Your task to perform on an android device: find snoozed emails in the gmail app Image 0: 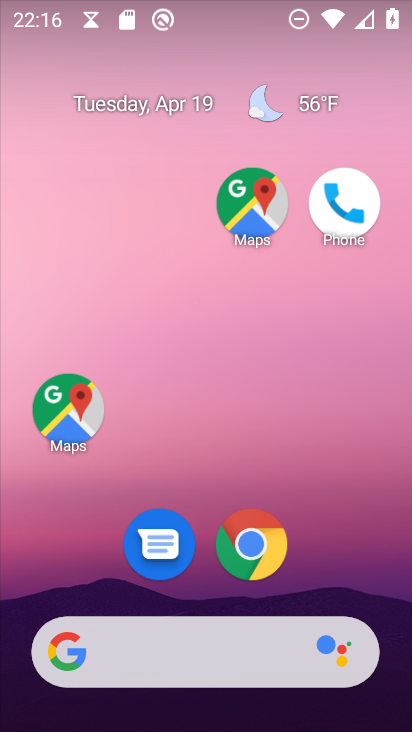
Step 0: drag from (141, 654) to (308, 120)
Your task to perform on an android device: find snoozed emails in the gmail app Image 1: 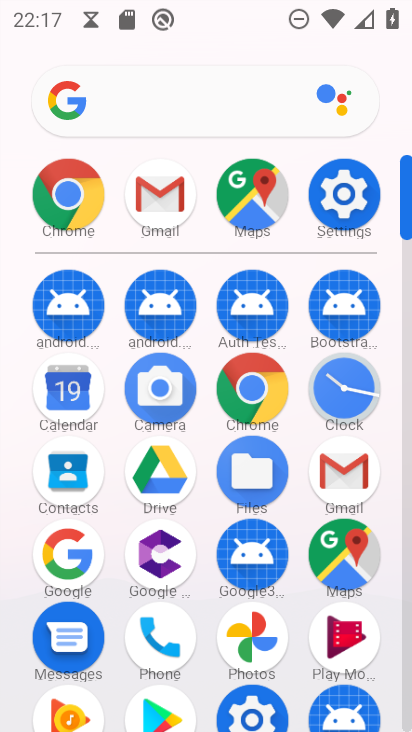
Step 1: click (155, 210)
Your task to perform on an android device: find snoozed emails in the gmail app Image 2: 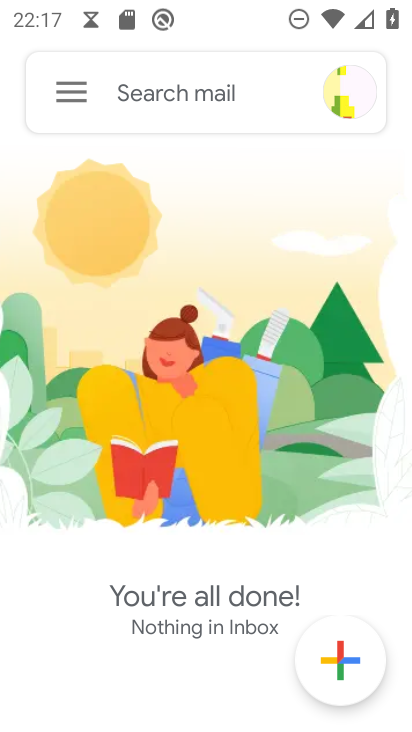
Step 2: click (69, 90)
Your task to perform on an android device: find snoozed emails in the gmail app Image 3: 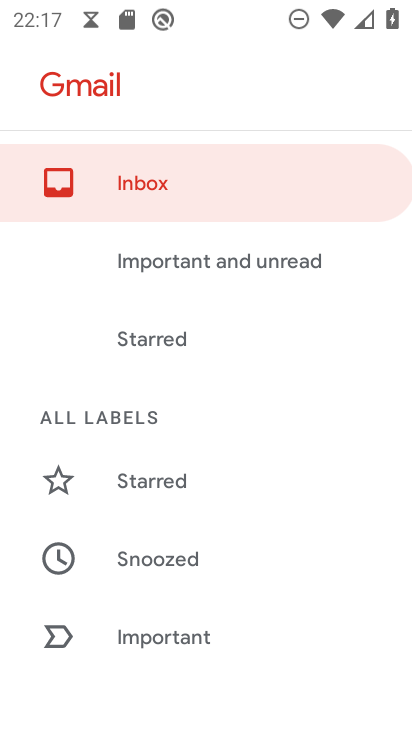
Step 3: click (188, 563)
Your task to perform on an android device: find snoozed emails in the gmail app Image 4: 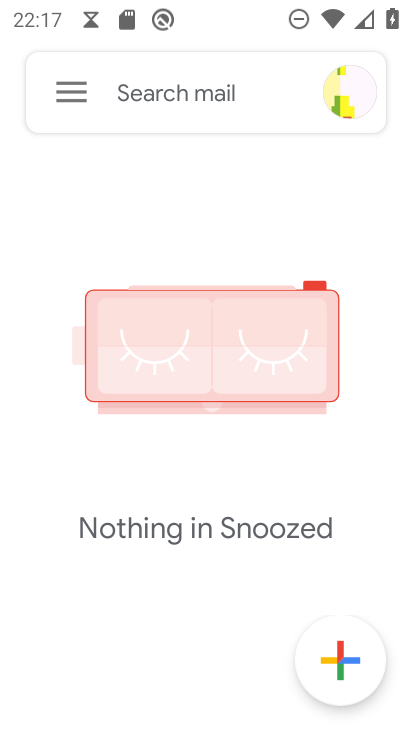
Step 4: task complete